Your task to perform on an android device: Go to battery settings Image 0: 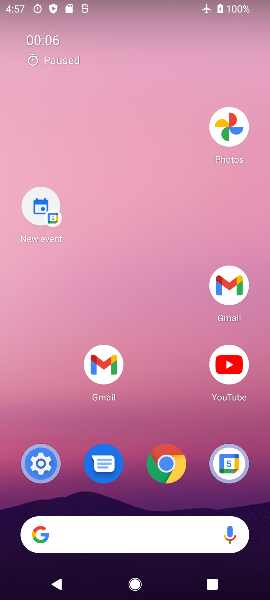
Step 0: drag from (182, 566) to (182, 97)
Your task to perform on an android device: Go to battery settings Image 1: 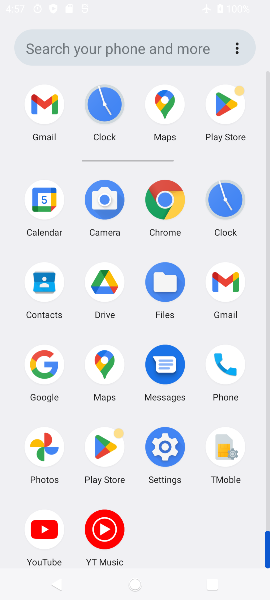
Step 1: drag from (163, 501) to (163, 173)
Your task to perform on an android device: Go to battery settings Image 2: 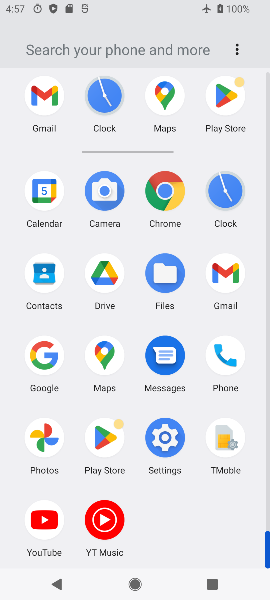
Step 2: click (164, 439)
Your task to perform on an android device: Go to battery settings Image 3: 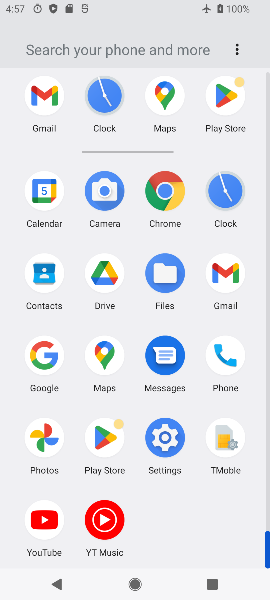
Step 3: click (164, 439)
Your task to perform on an android device: Go to battery settings Image 4: 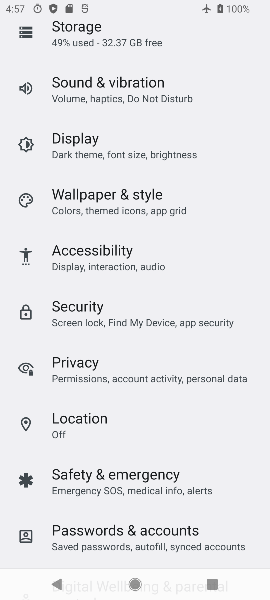
Step 4: drag from (84, 164) to (133, 444)
Your task to perform on an android device: Go to battery settings Image 5: 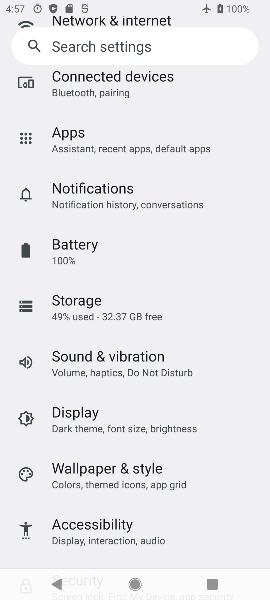
Step 5: click (74, 248)
Your task to perform on an android device: Go to battery settings Image 6: 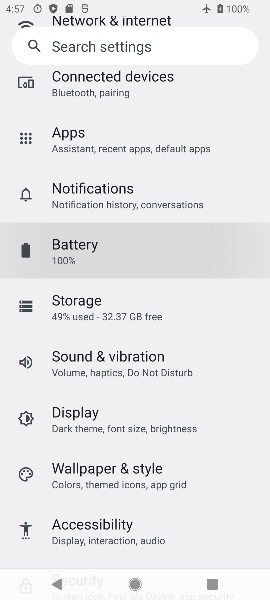
Step 6: click (74, 248)
Your task to perform on an android device: Go to battery settings Image 7: 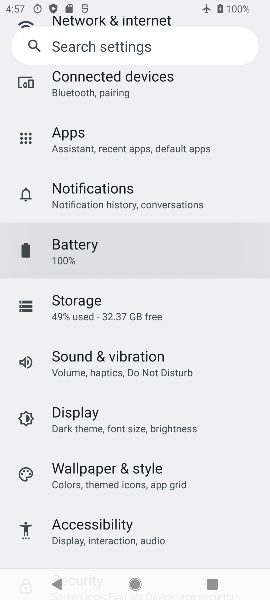
Step 7: click (74, 248)
Your task to perform on an android device: Go to battery settings Image 8: 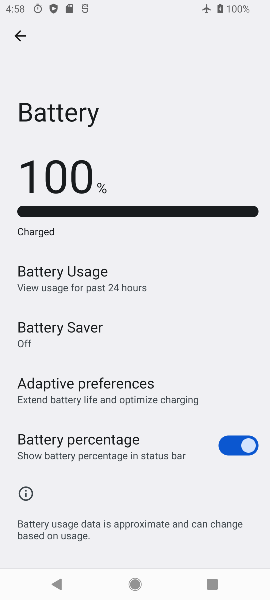
Step 8: task complete